Your task to perform on an android device: check the backup settings in the google photos Image 0: 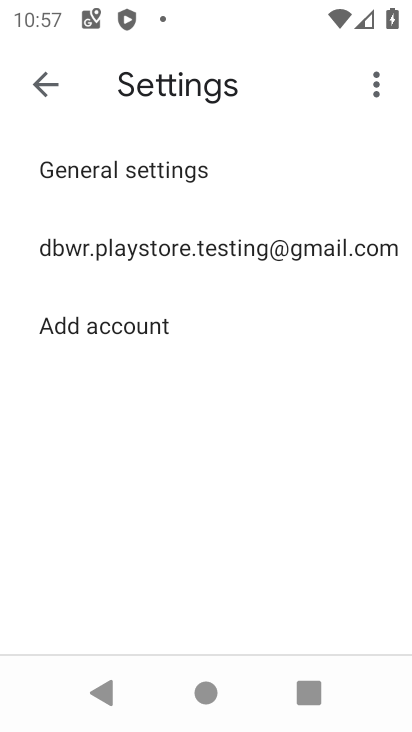
Step 0: press home button
Your task to perform on an android device: check the backup settings in the google photos Image 1: 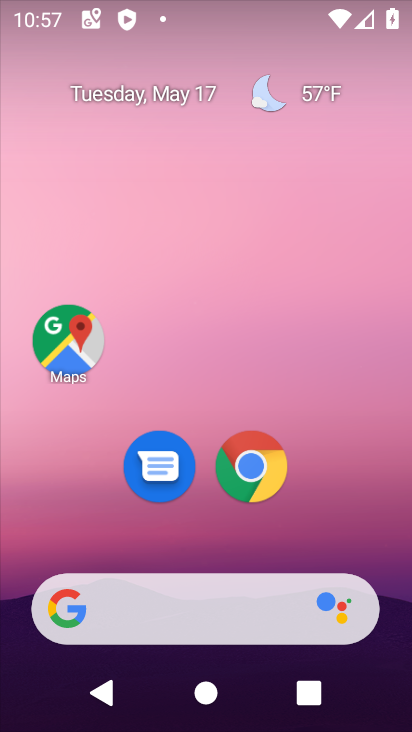
Step 1: drag from (226, 547) to (14, 102)
Your task to perform on an android device: check the backup settings in the google photos Image 2: 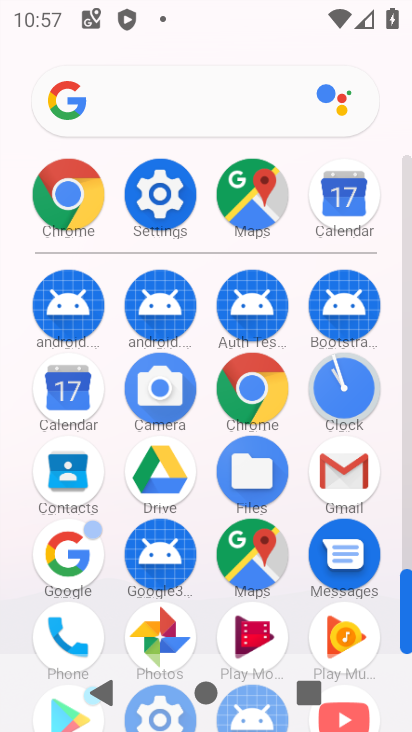
Step 2: click (155, 648)
Your task to perform on an android device: check the backup settings in the google photos Image 3: 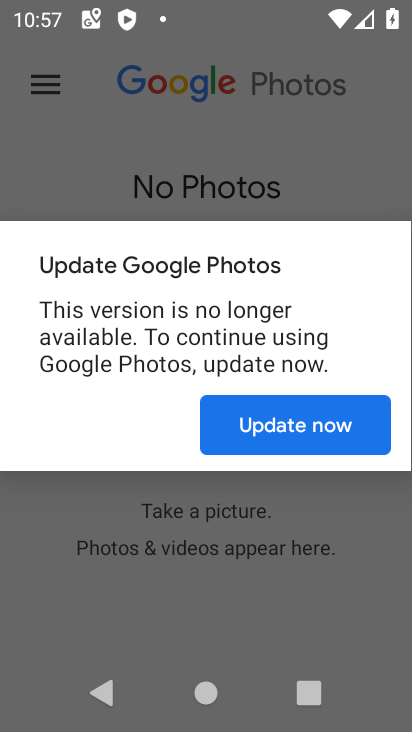
Step 3: click (300, 426)
Your task to perform on an android device: check the backup settings in the google photos Image 4: 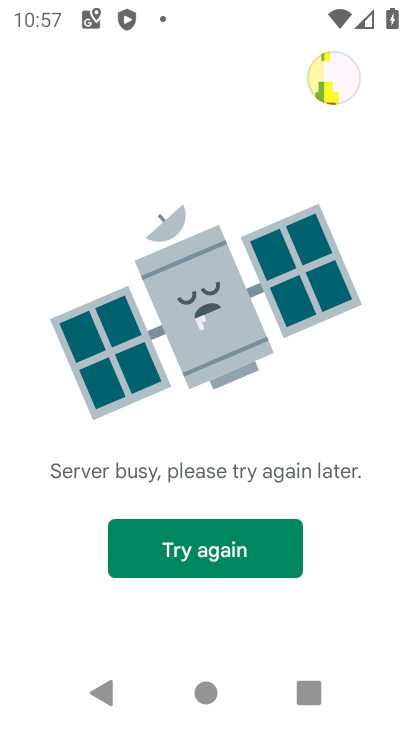
Step 4: click (247, 521)
Your task to perform on an android device: check the backup settings in the google photos Image 5: 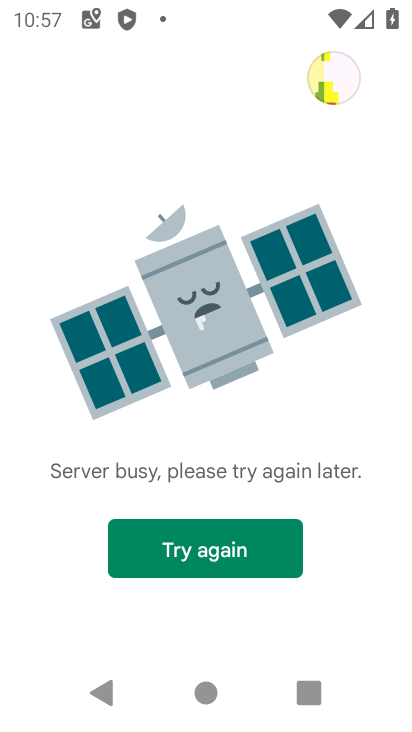
Step 5: task complete